Your task to perform on an android device: turn notification dots on Image 0: 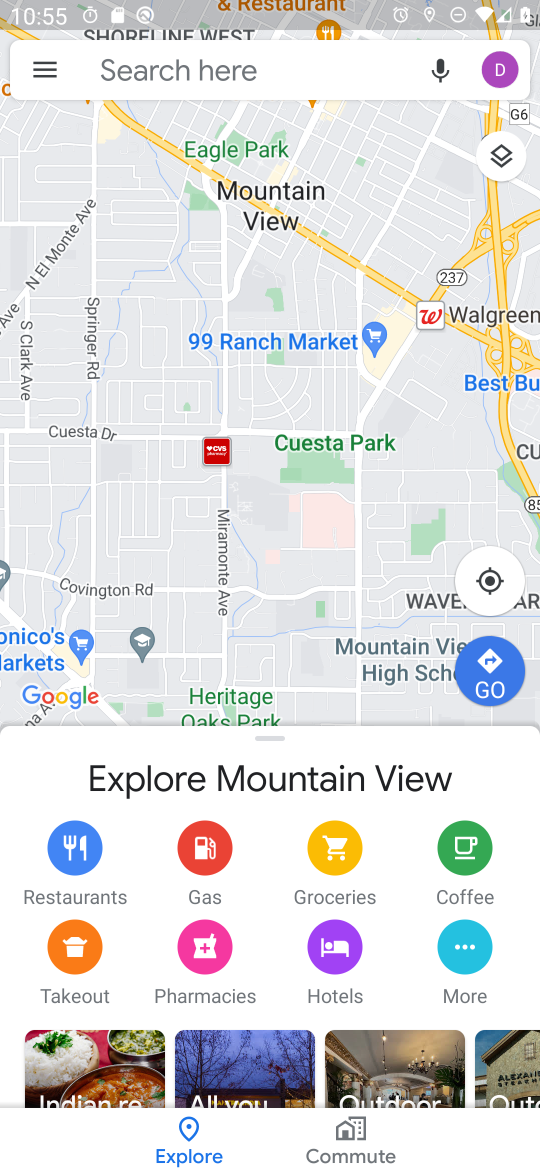
Step 0: press home button
Your task to perform on an android device: turn notification dots on Image 1: 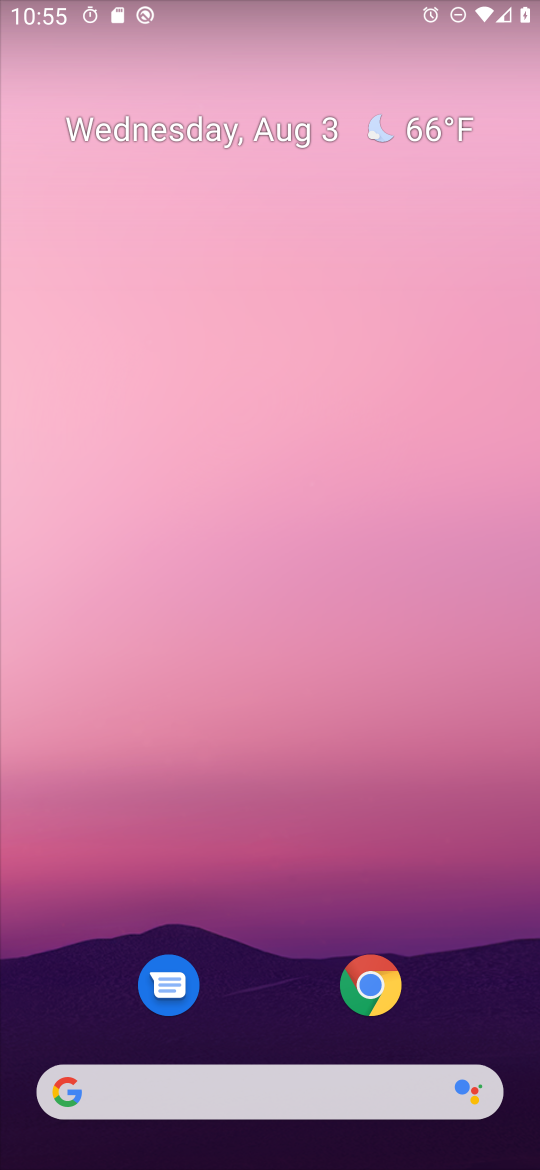
Step 1: drag from (298, 974) to (358, 357)
Your task to perform on an android device: turn notification dots on Image 2: 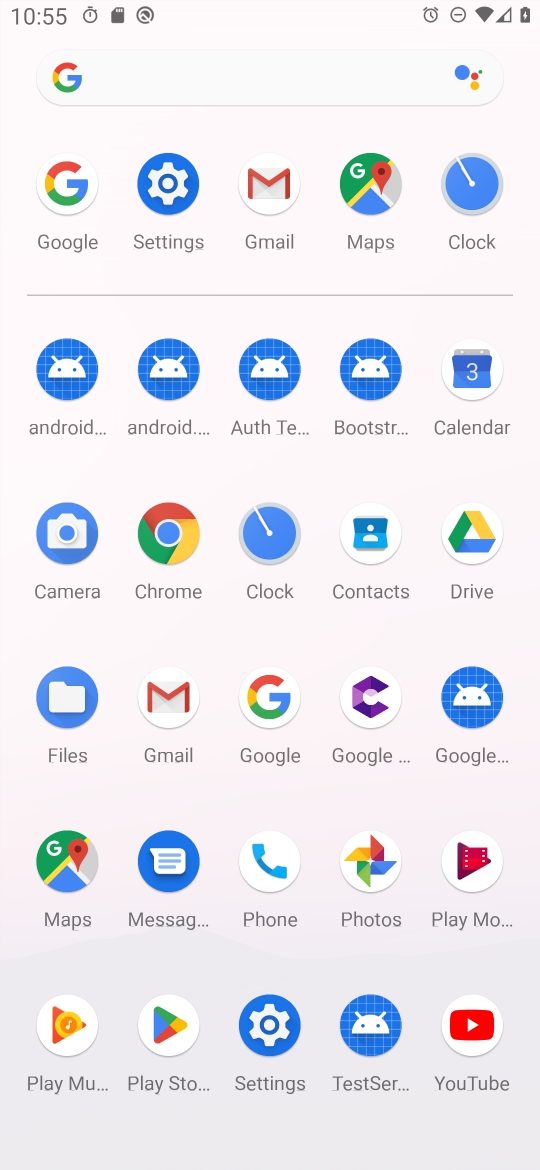
Step 2: click (160, 205)
Your task to perform on an android device: turn notification dots on Image 3: 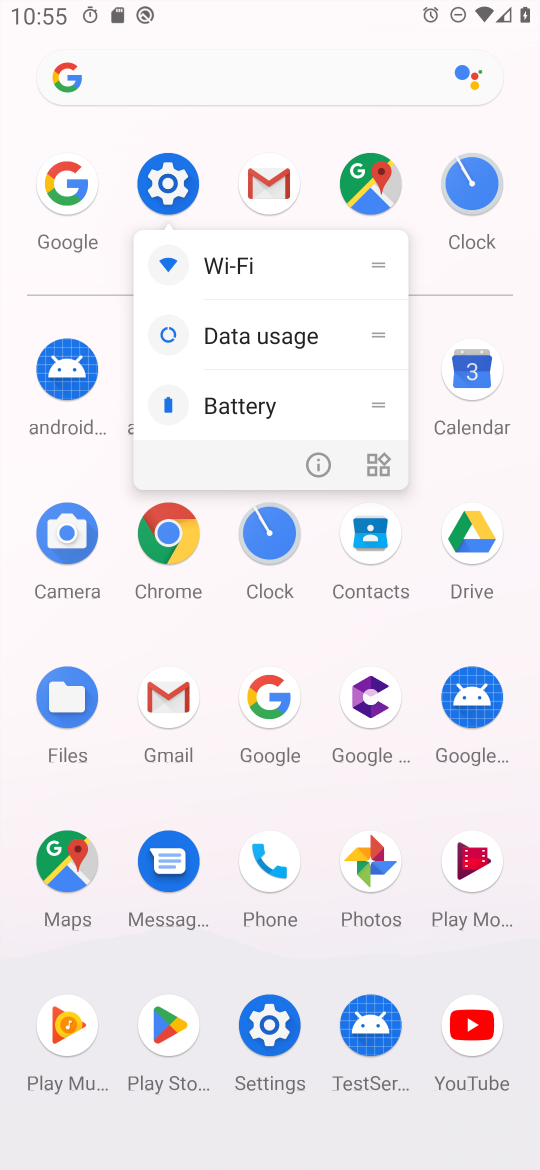
Step 3: click (160, 205)
Your task to perform on an android device: turn notification dots on Image 4: 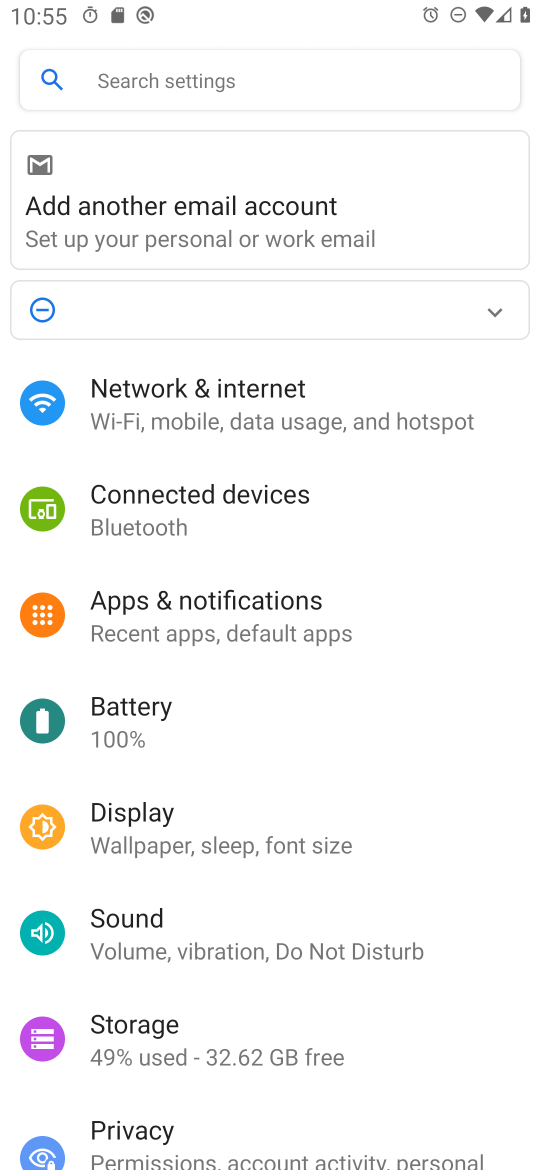
Step 4: click (276, 644)
Your task to perform on an android device: turn notification dots on Image 5: 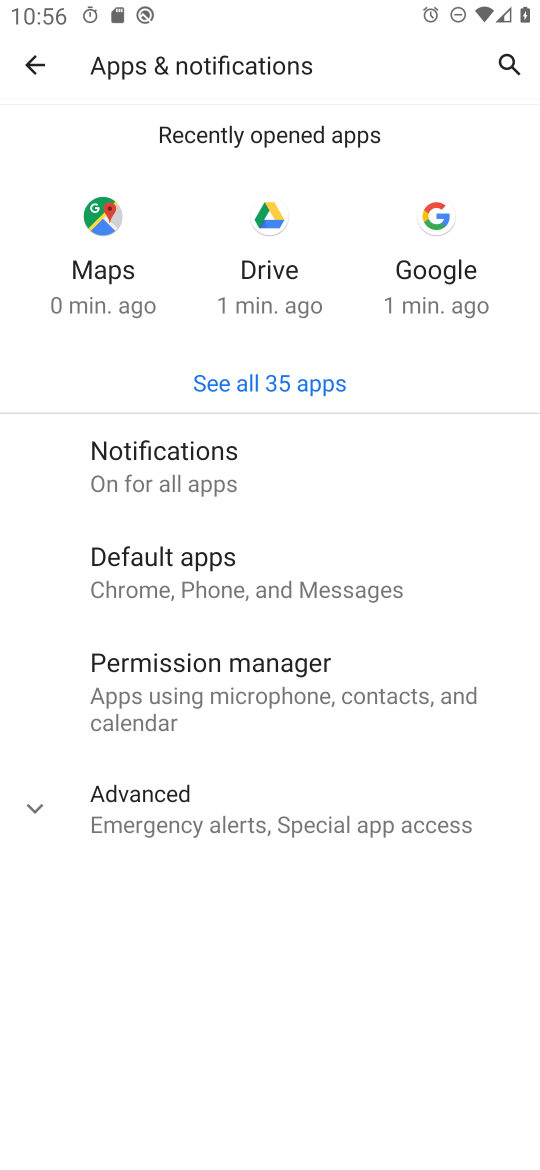
Step 5: click (247, 493)
Your task to perform on an android device: turn notification dots on Image 6: 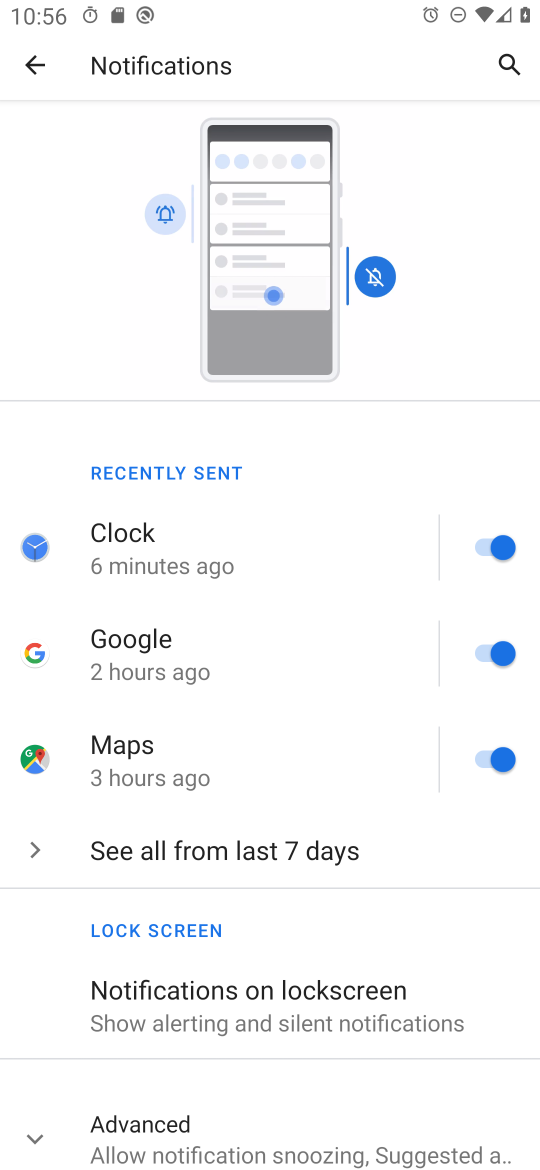
Step 6: drag from (289, 943) to (346, 590)
Your task to perform on an android device: turn notification dots on Image 7: 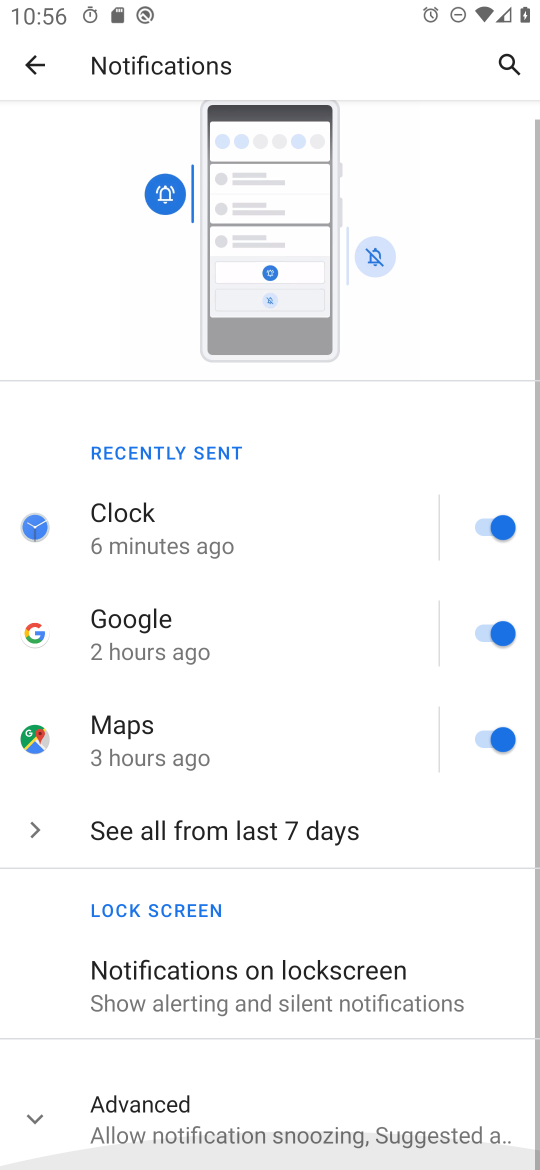
Step 7: click (200, 1090)
Your task to perform on an android device: turn notification dots on Image 8: 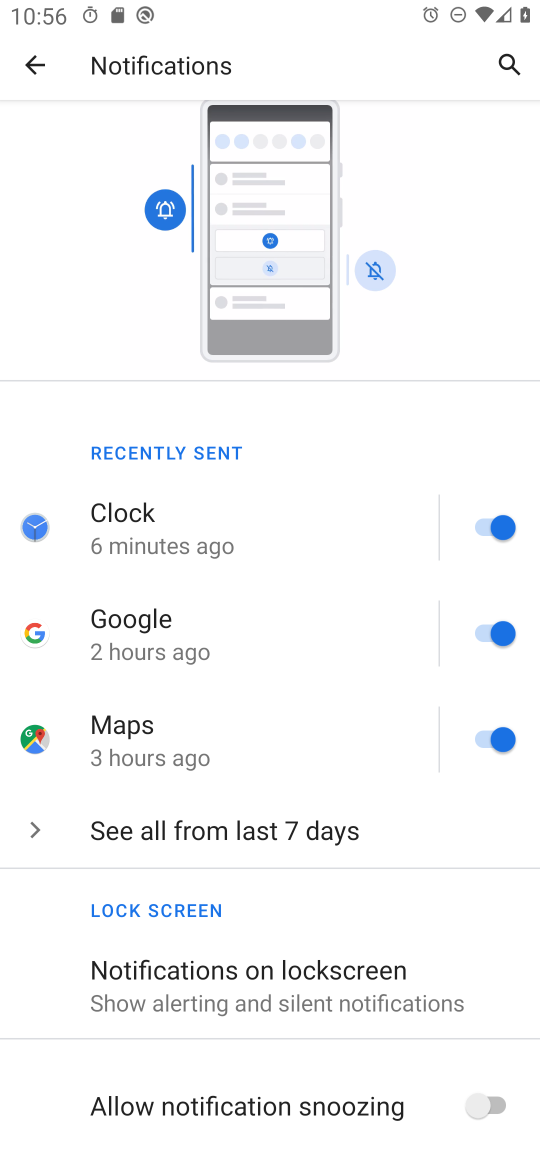
Step 8: drag from (250, 1028) to (274, 626)
Your task to perform on an android device: turn notification dots on Image 9: 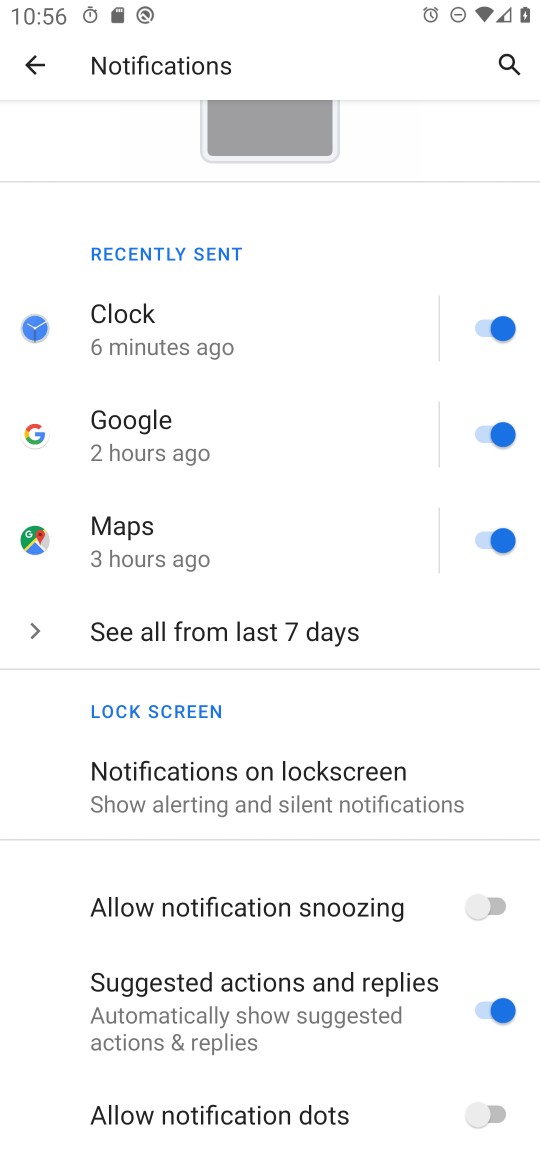
Step 9: click (486, 1105)
Your task to perform on an android device: turn notification dots on Image 10: 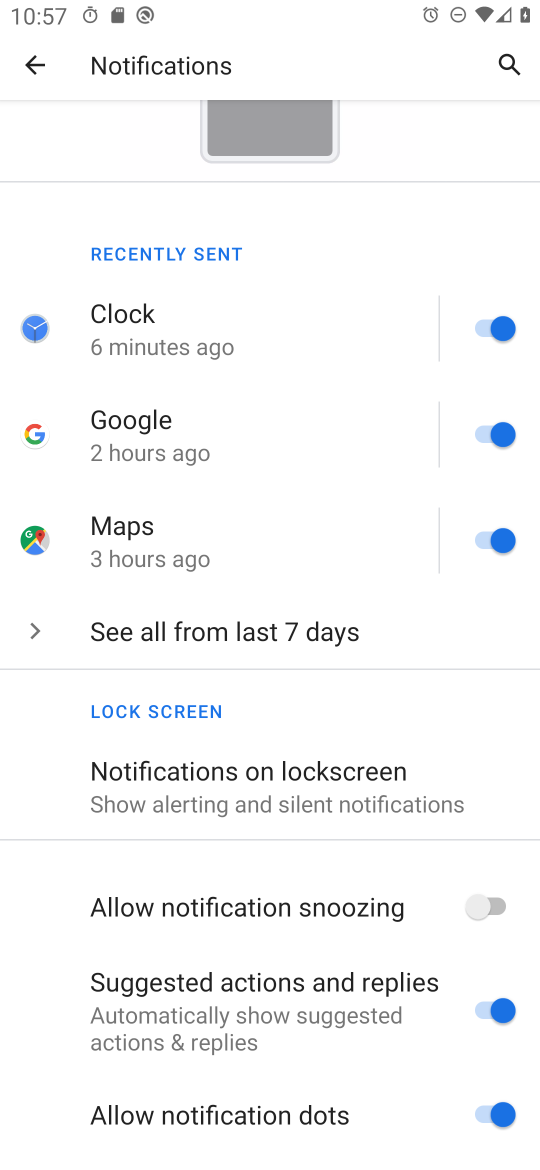
Step 10: task complete